Your task to perform on an android device: see sites visited before in the chrome app Image 0: 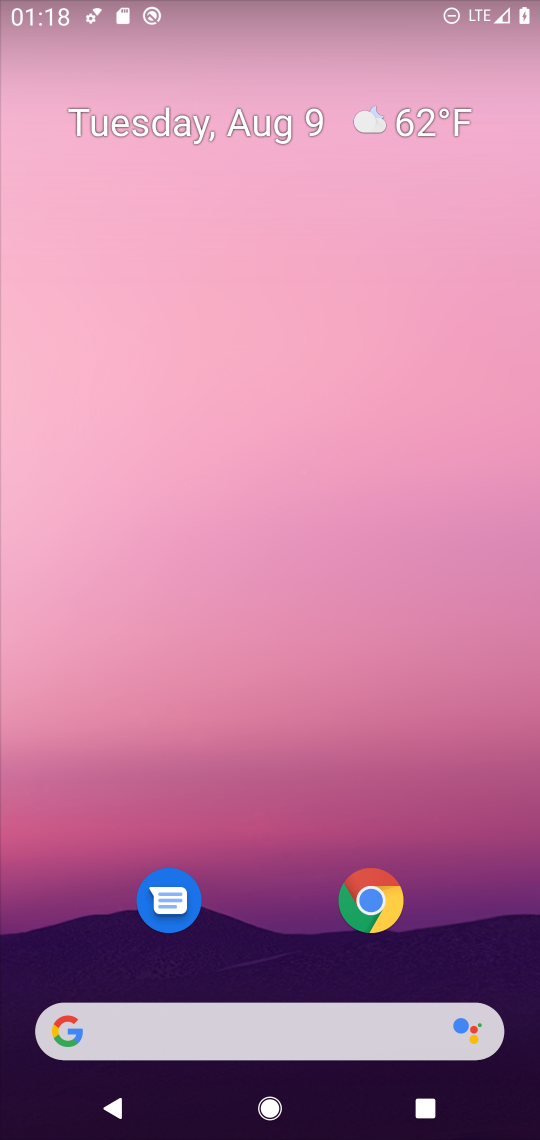
Step 0: press home button
Your task to perform on an android device: see sites visited before in the chrome app Image 1: 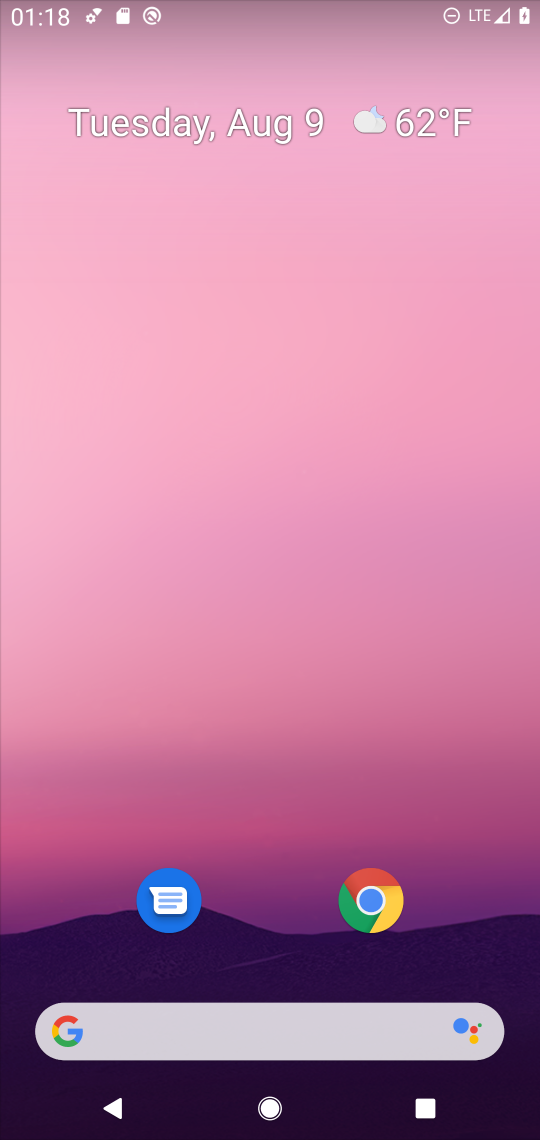
Step 1: drag from (258, 894) to (320, 127)
Your task to perform on an android device: see sites visited before in the chrome app Image 2: 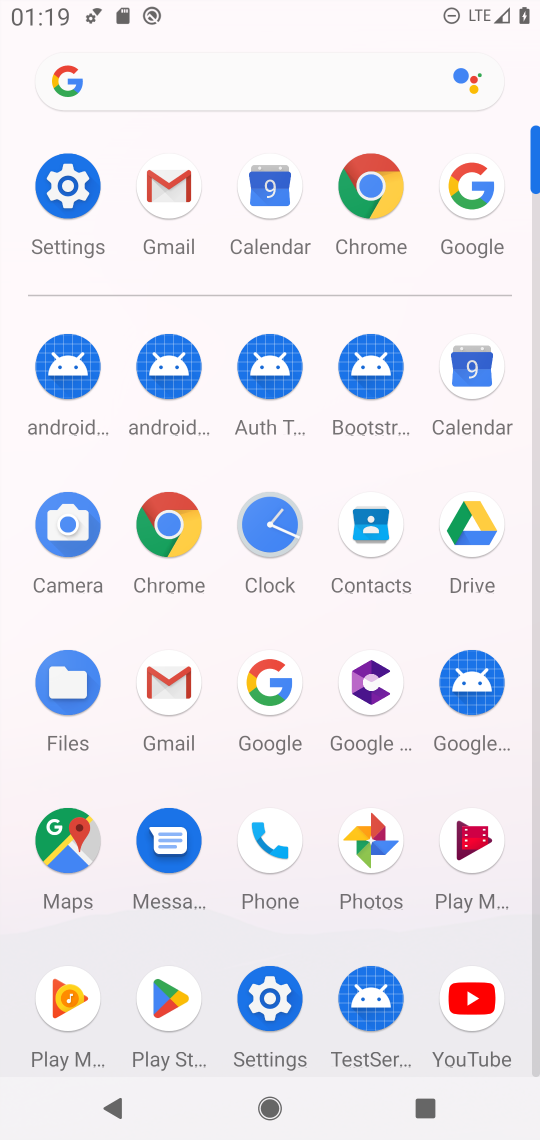
Step 2: click (175, 527)
Your task to perform on an android device: see sites visited before in the chrome app Image 3: 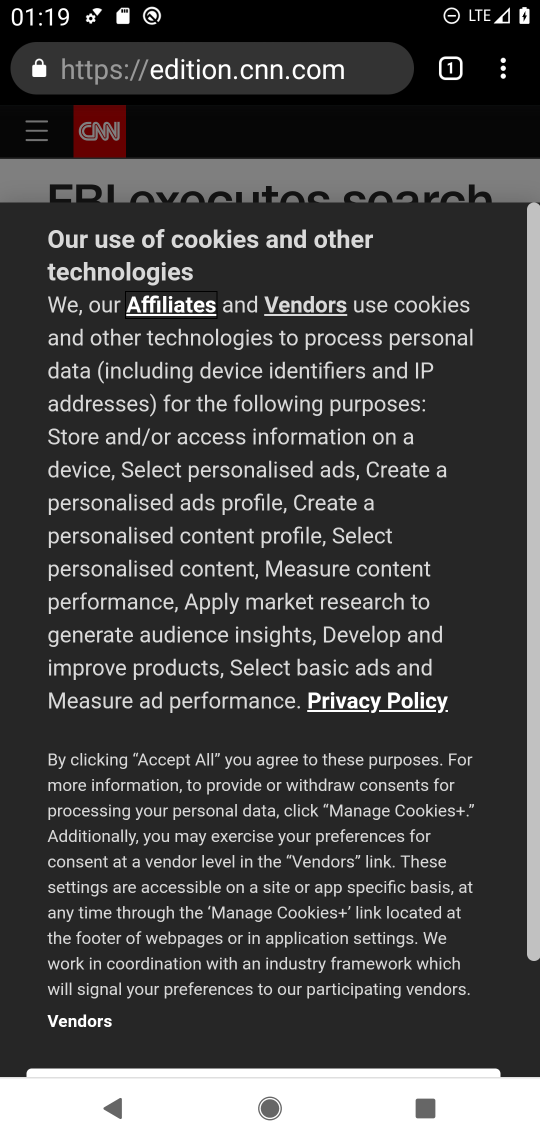
Step 3: click (500, 73)
Your task to perform on an android device: see sites visited before in the chrome app Image 4: 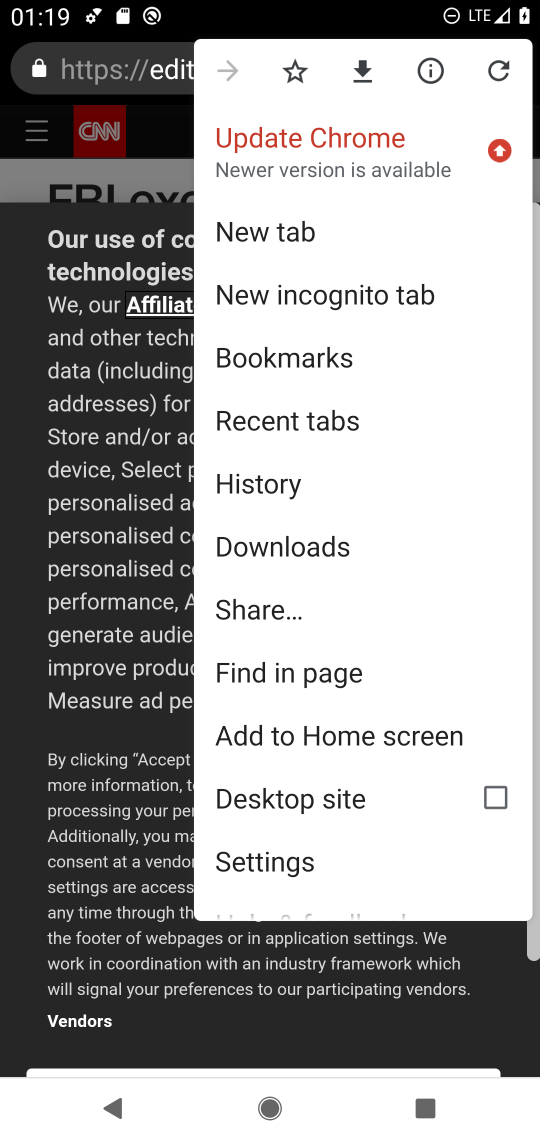
Step 4: click (307, 477)
Your task to perform on an android device: see sites visited before in the chrome app Image 5: 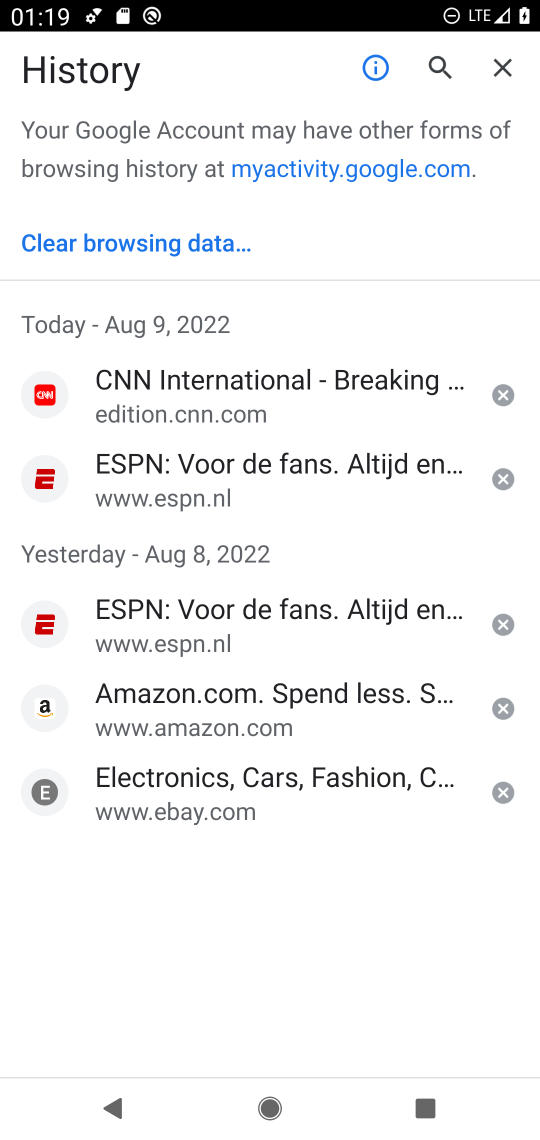
Step 5: task complete